Your task to perform on an android device: Go to ESPN.com Image 0: 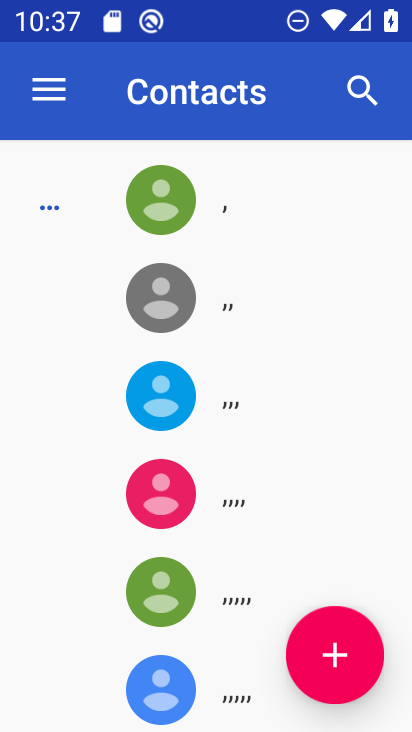
Step 0: press home button
Your task to perform on an android device: Go to ESPN.com Image 1: 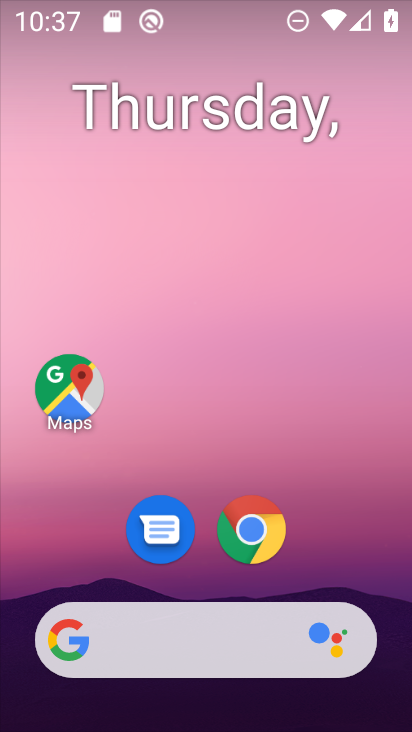
Step 1: click (238, 654)
Your task to perform on an android device: Go to ESPN.com Image 2: 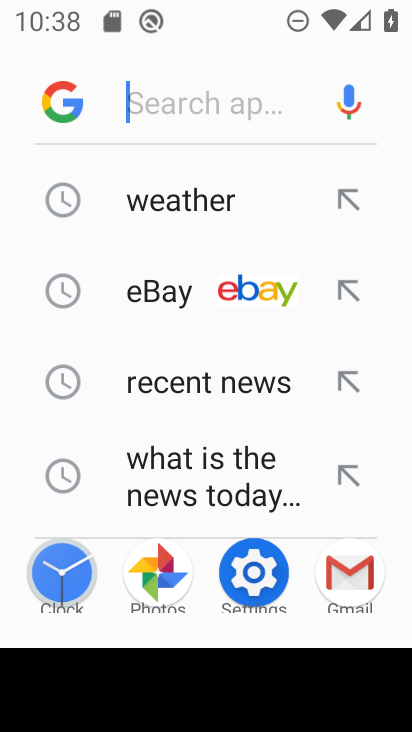
Step 2: type "espn.com"
Your task to perform on an android device: Go to ESPN.com Image 3: 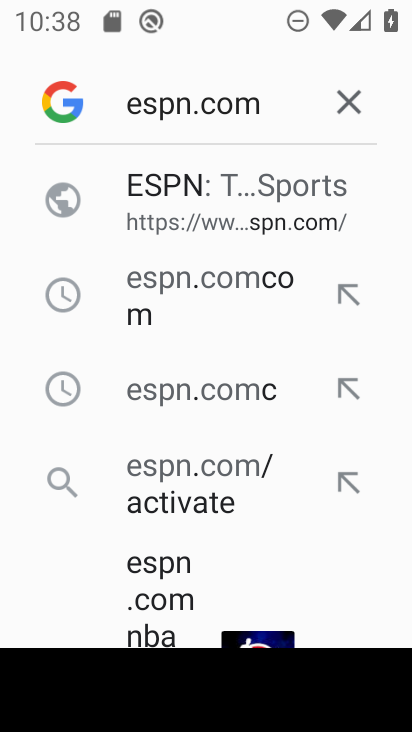
Step 3: click (202, 194)
Your task to perform on an android device: Go to ESPN.com Image 4: 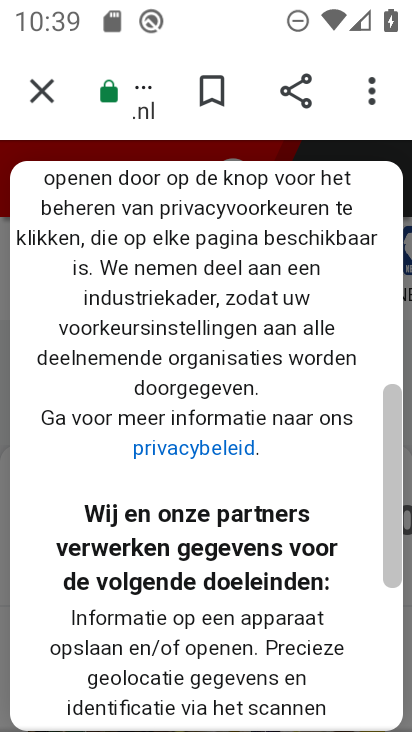
Step 4: task complete